Your task to perform on an android device: Toggle the flashlight Image 0: 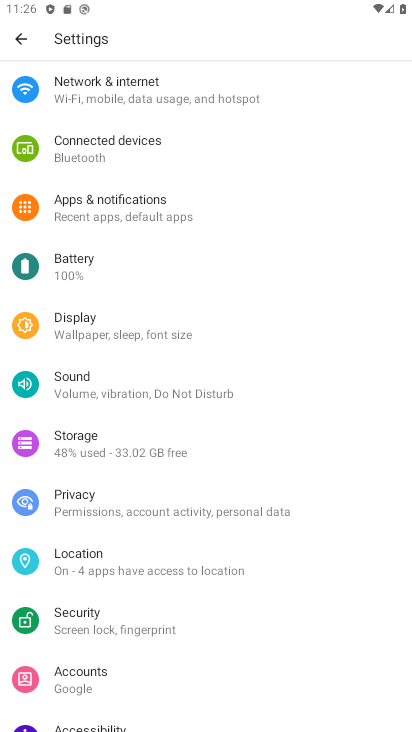
Step 0: drag from (257, 87) to (229, 484)
Your task to perform on an android device: Toggle the flashlight Image 1: 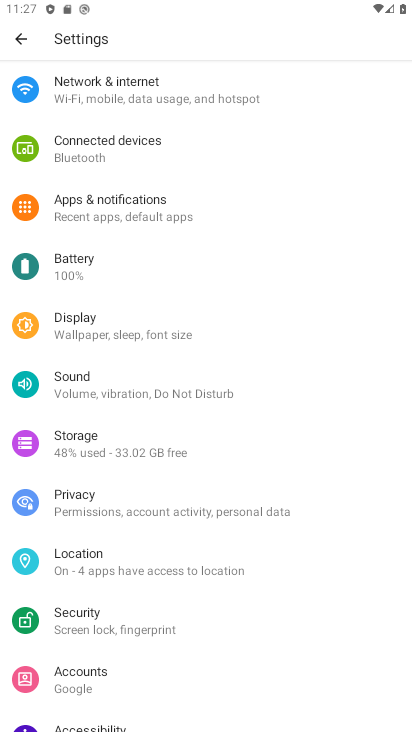
Step 1: click (83, 659)
Your task to perform on an android device: Toggle the flashlight Image 2: 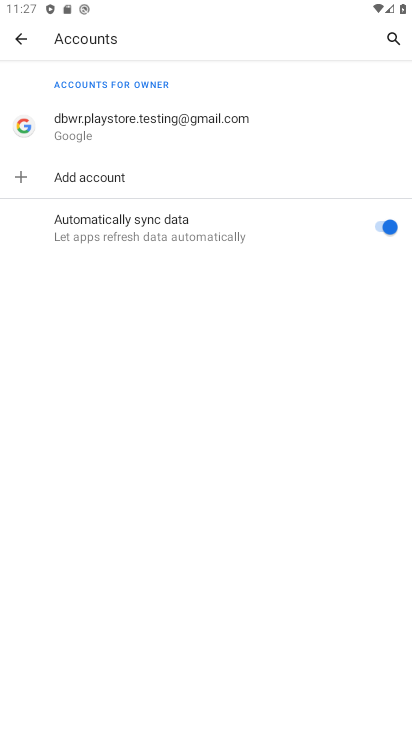
Step 2: click (29, 41)
Your task to perform on an android device: Toggle the flashlight Image 3: 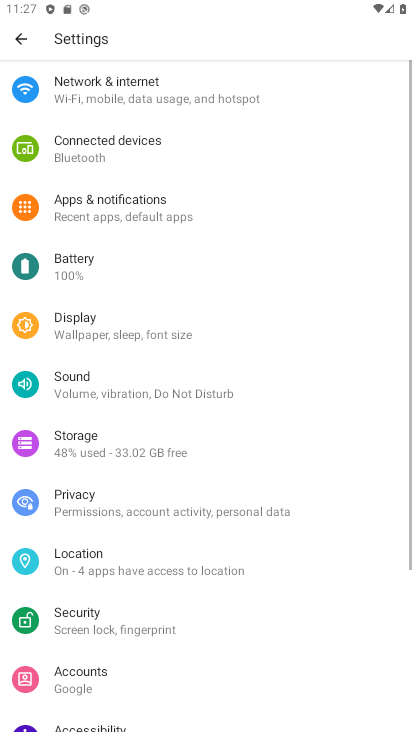
Step 3: drag from (122, 660) to (160, 361)
Your task to perform on an android device: Toggle the flashlight Image 4: 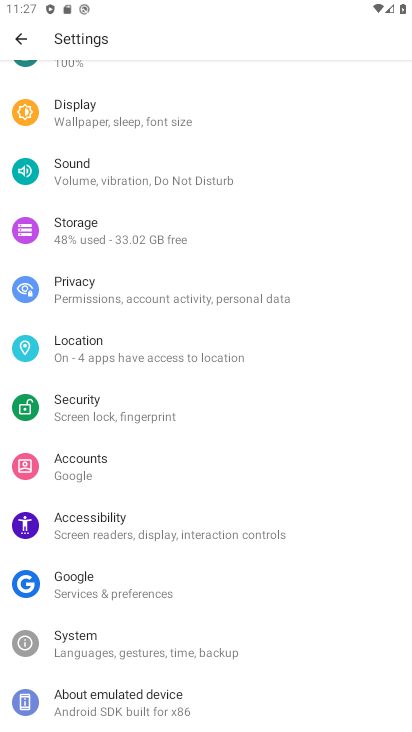
Step 4: click (142, 532)
Your task to perform on an android device: Toggle the flashlight Image 5: 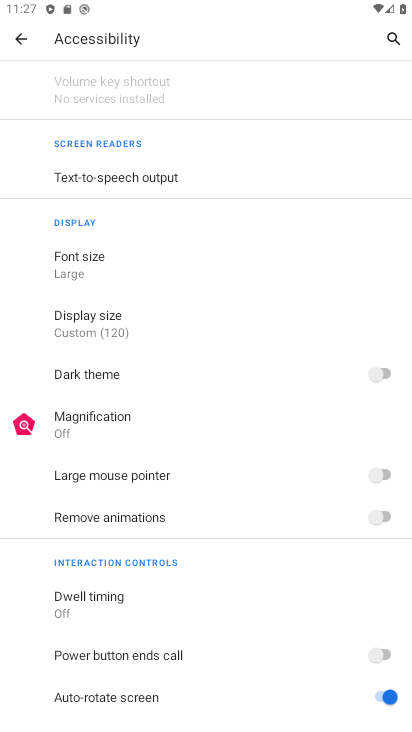
Step 5: task complete